Your task to perform on an android device: Show me recent news Image 0: 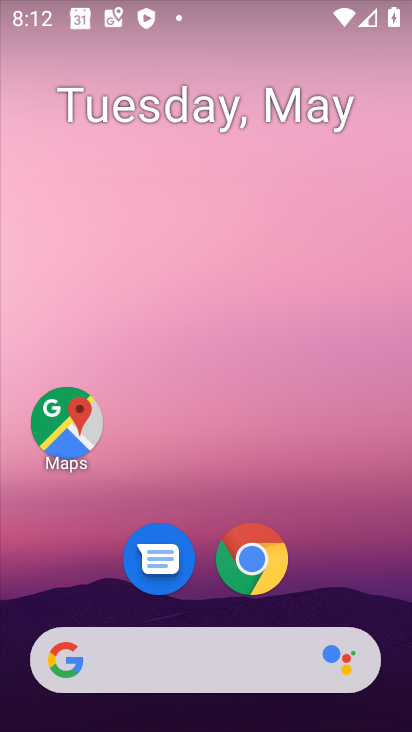
Step 0: click (152, 659)
Your task to perform on an android device: Show me recent news Image 1: 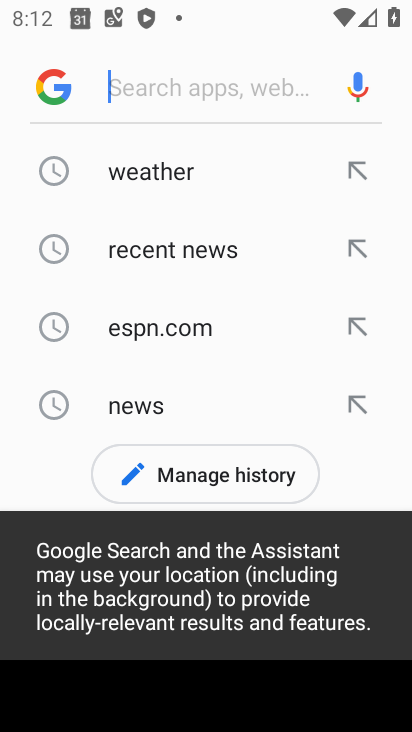
Step 1: type "recent"
Your task to perform on an android device: Show me recent news Image 2: 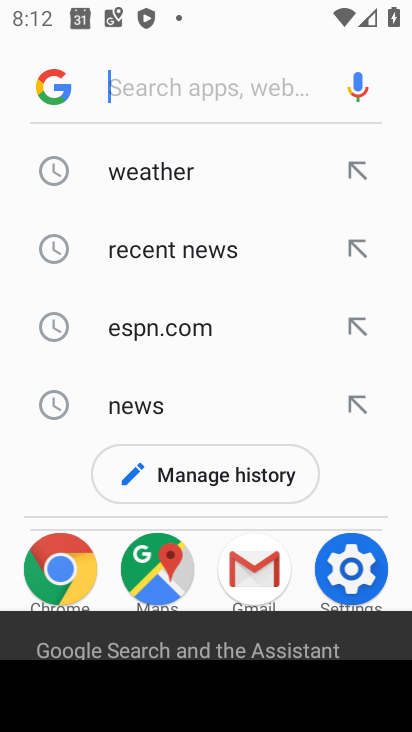
Step 2: click (215, 232)
Your task to perform on an android device: Show me recent news Image 3: 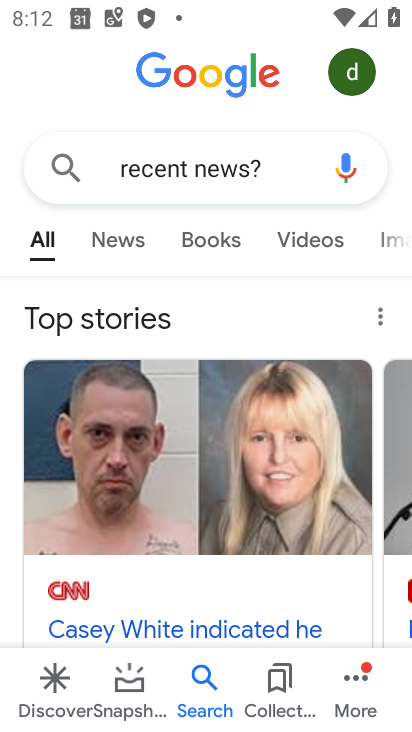
Step 3: task complete